Your task to perform on an android device: delete location history Image 0: 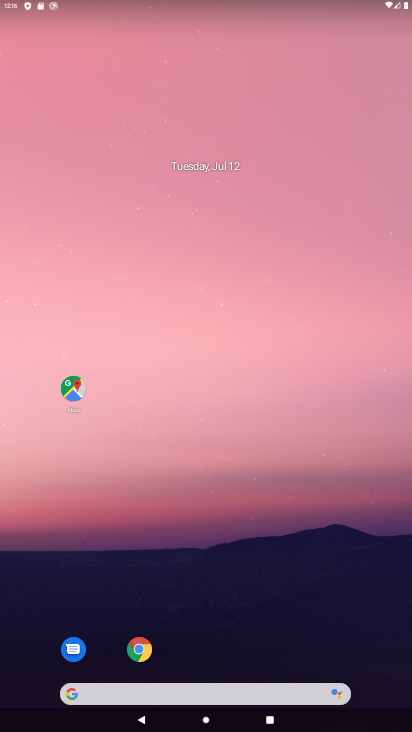
Step 0: drag from (221, 649) to (229, 269)
Your task to perform on an android device: delete location history Image 1: 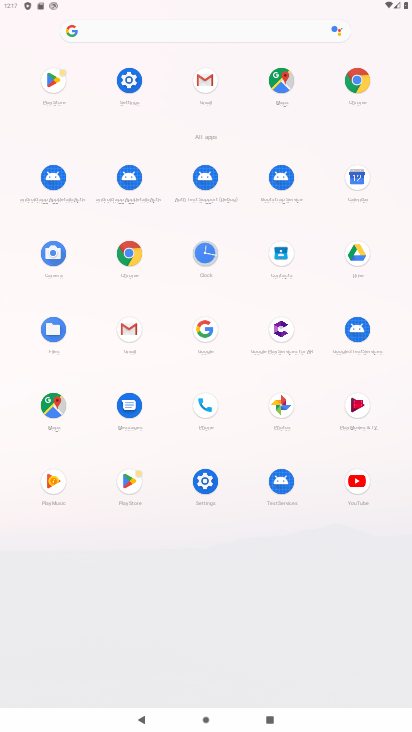
Step 1: click (137, 87)
Your task to perform on an android device: delete location history Image 2: 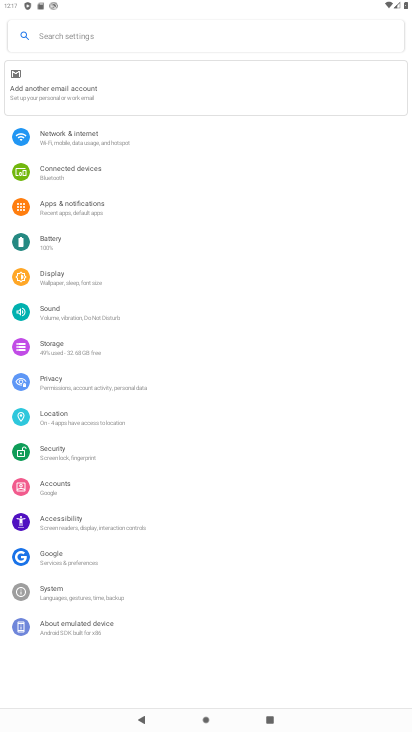
Step 2: click (161, 414)
Your task to perform on an android device: delete location history Image 3: 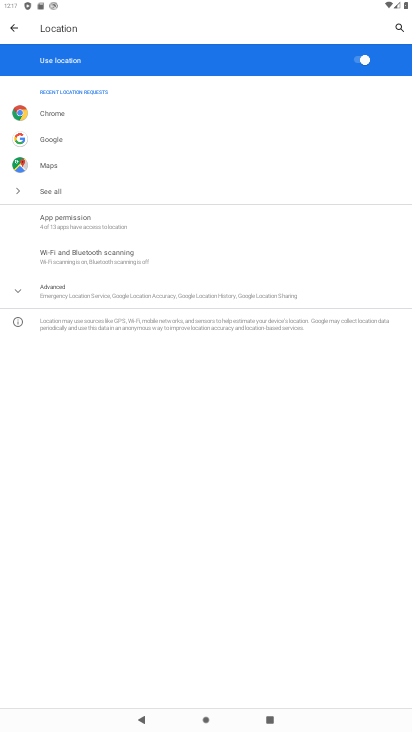
Step 3: click (135, 282)
Your task to perform on an android device: delete location history Image 4: 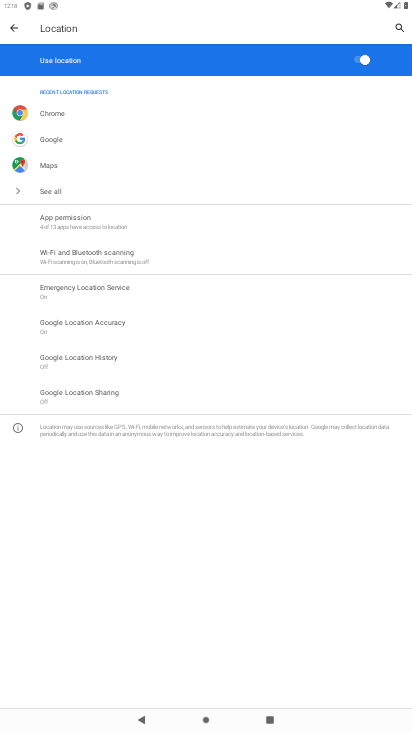
Step 4: click (110, 351)
Your task to perform on an android device: delete location history Image 5: 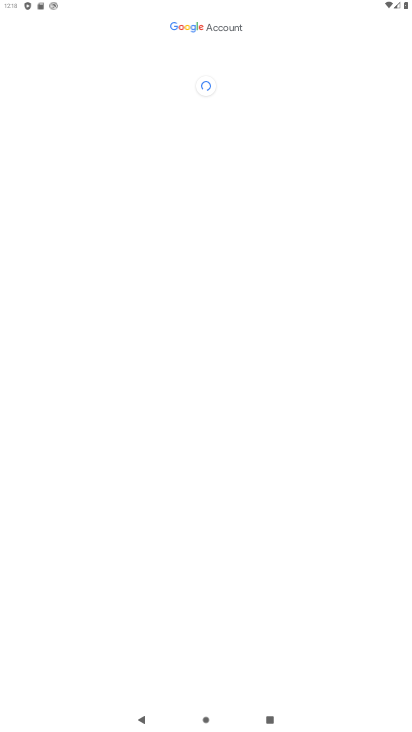
Step 5: task complete